Your task to perform on an android device: Show me the alarms in the clock app Image 0: 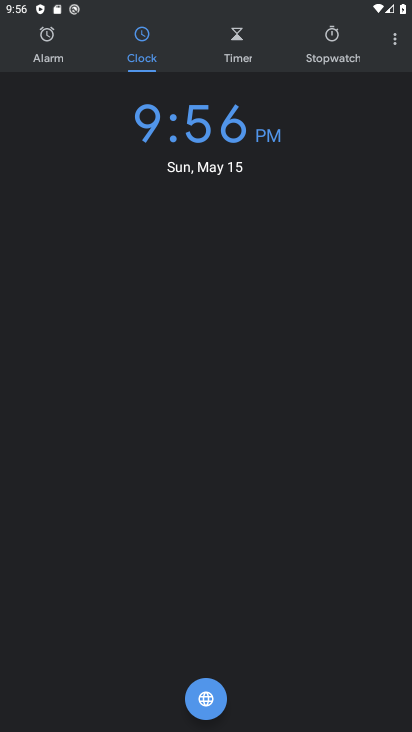
Step 0: click (332, 174)
Your task to perform on an android device: Show me the alarms in the clock app Image 1: 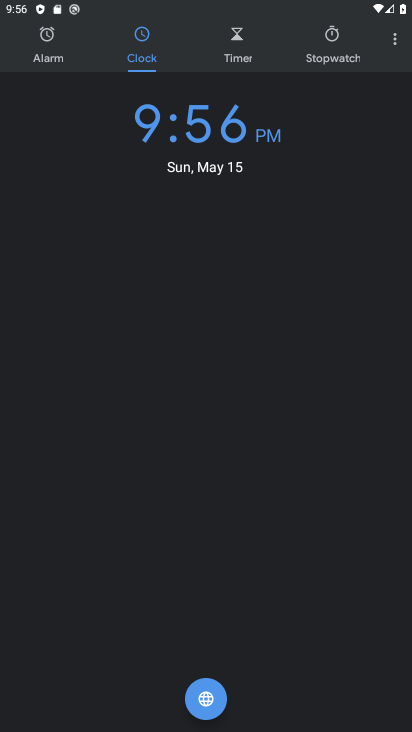
Step 1: click (64, 43)
Your task to perform on an android device: Show me the alarms in the clock app Image 2: 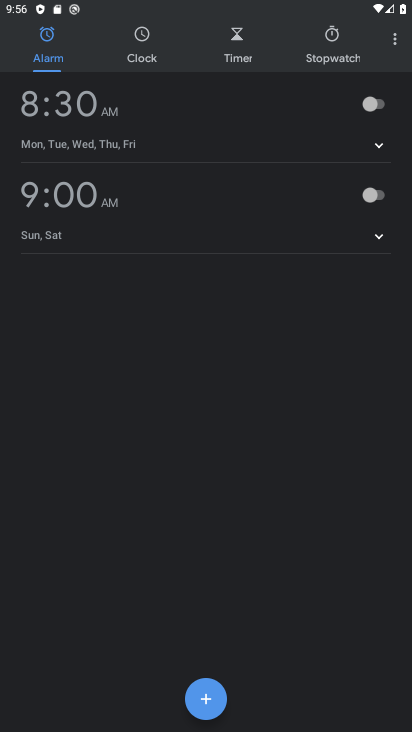
Step 2: task complete